Your task to perform on an android device: find snoozed emails in the gmail app Image 0: 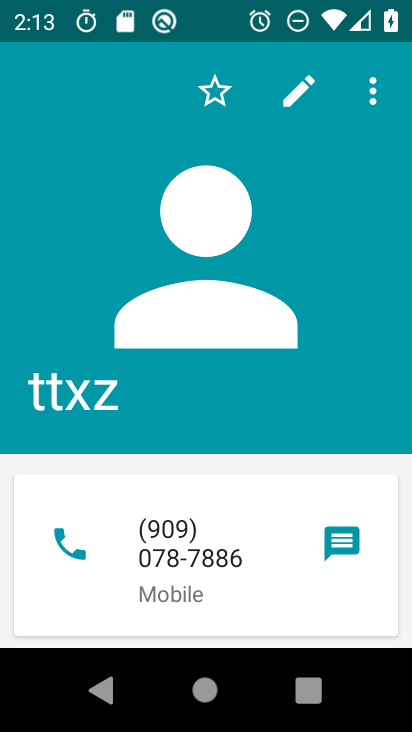
Step 0: press home button
Your task to perform on an android device: find snoozed emails in the gmail app Image 1: 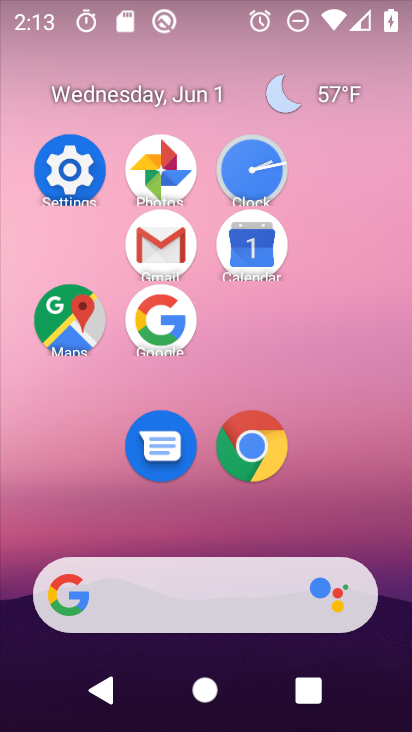
Step 1: click (152, 235)
Your task to perform on an android device: find snoozed emails in the gmail app Image 2: 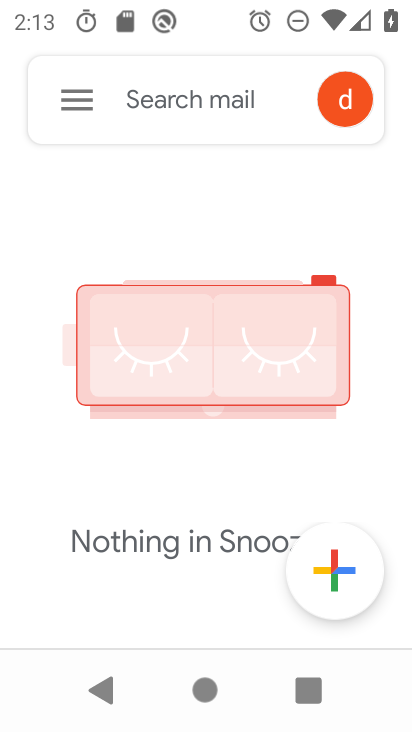
Step 2: click (100, 84)
Your task to perform on an android device: find snoozed emails in the gmail app Image 3: 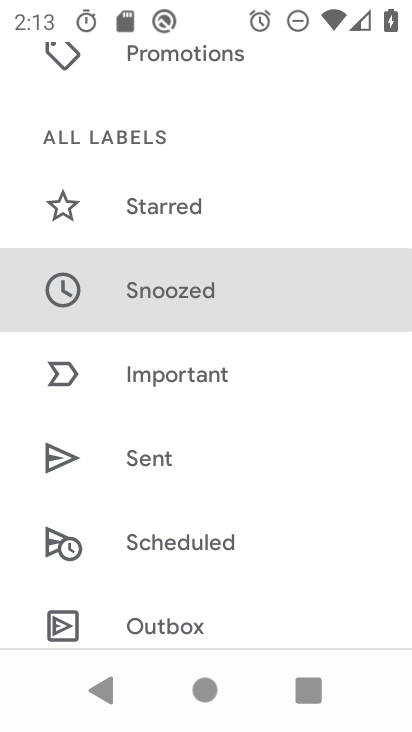
Step 3: drag from (221, 175) to (212, 395)
Your task to perform on an android device: find snoozed emails in the gmail app Image 4: 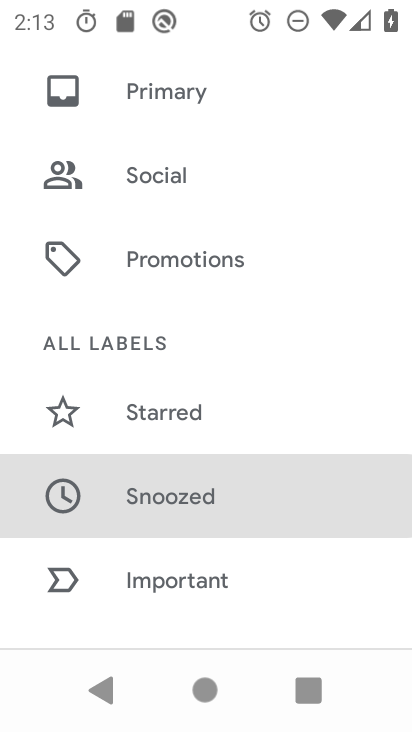
Step 4: click (202, 486)
Your task to perform on an android device: find snoozed emails in the gmail app Image 5: 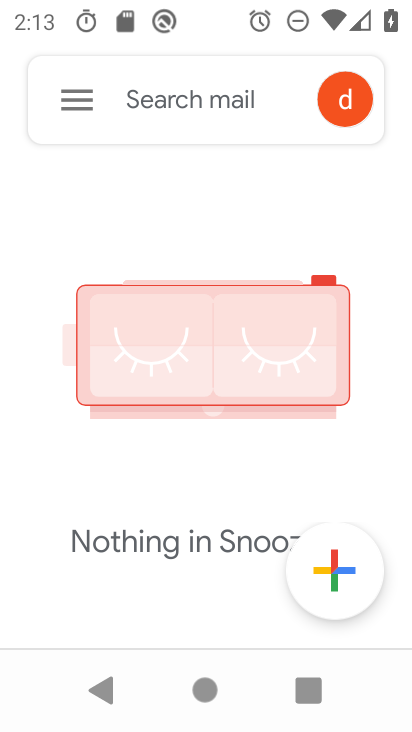
Step 5: task complete